Your task to perform on an android device: Open Chrome and go to settings Image 0: 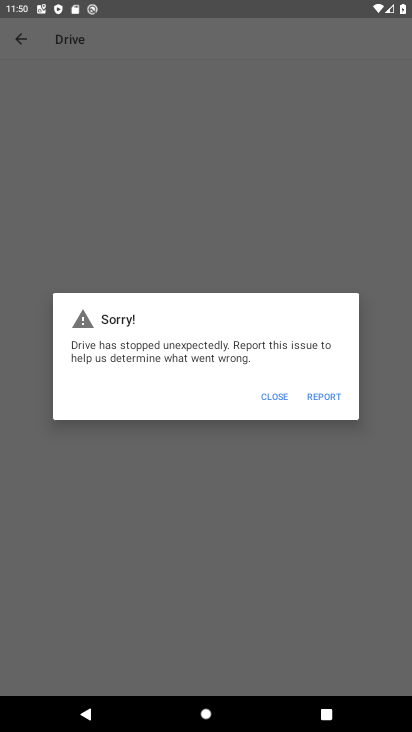
Step 0: press home button
Your task to perform on an android device: Open Chrome and go to settings Image 1: 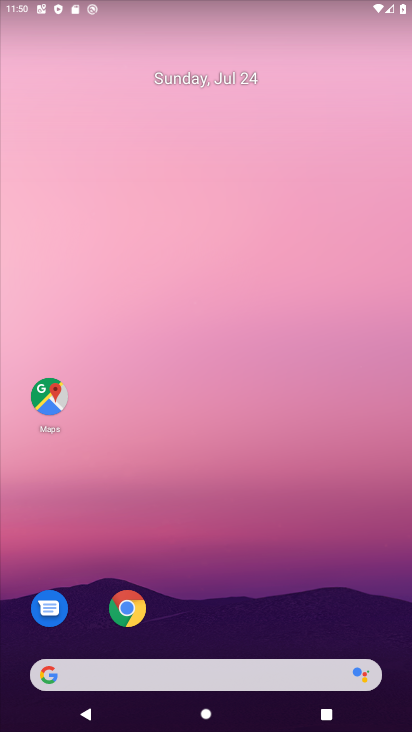
Step 1: click (135, 611)
Your task to perform on an android device: Open Chrome and go to settings Image 2: 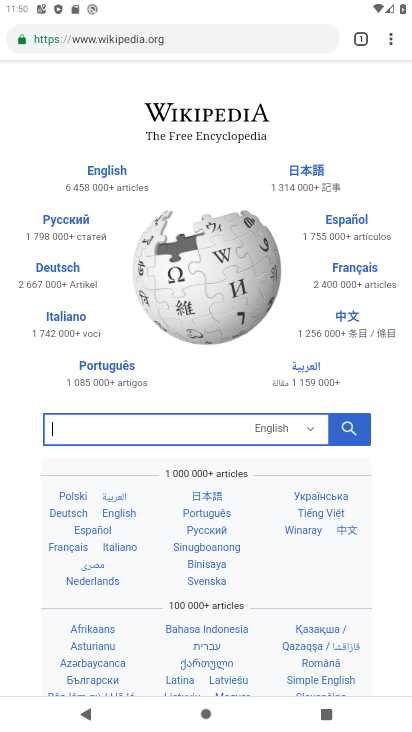
Step 2: task complete